Your task to perform on an android device: open app "AliExpress" (install if not already installed) Image 0: 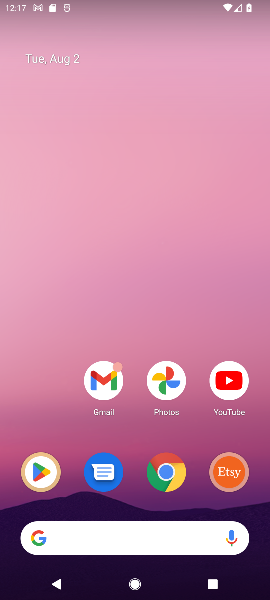
Step 0: click (36, 469)
Your task to perform on an android device: open app "AliExpress" (install if not already installed) Image 1: 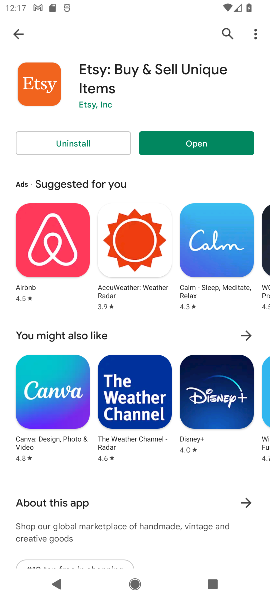
Step 1: click (232, 45)
Your task to perform on an android device: open app "AliExpress" (install if not already installed) Image 2: 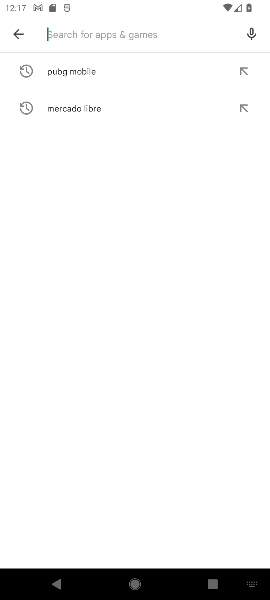
Step 2: type "aliexpress"
Your task to perform on an android device: open app "AliExpress" (install if not already installed) Image 3: 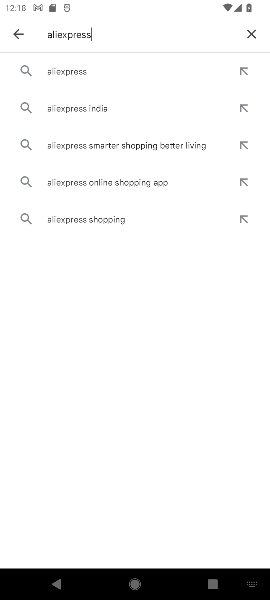
Step 3: click (120, 66)
Your task to perform on an android device: open app "AliExpress" (install if not already installed) Image 4: 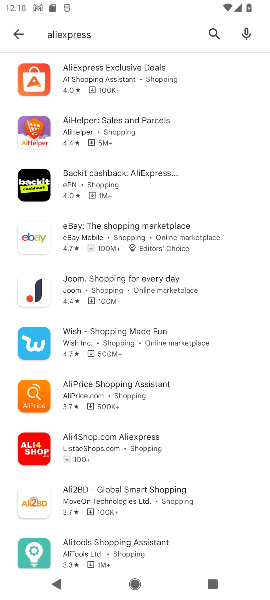
Step 4: click (133, 75)
Your task to perform on an android device: open app "AliExpress" (install if not already installed) Image 5: 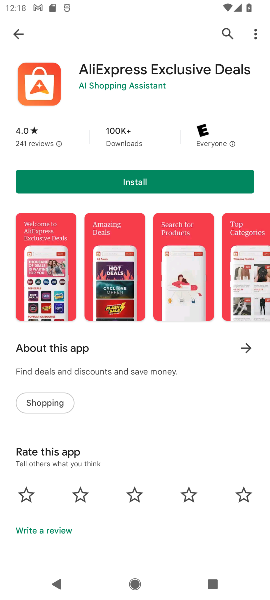
Step 5: task complete